Your task to perform on an android device: Open location settings Image 0: 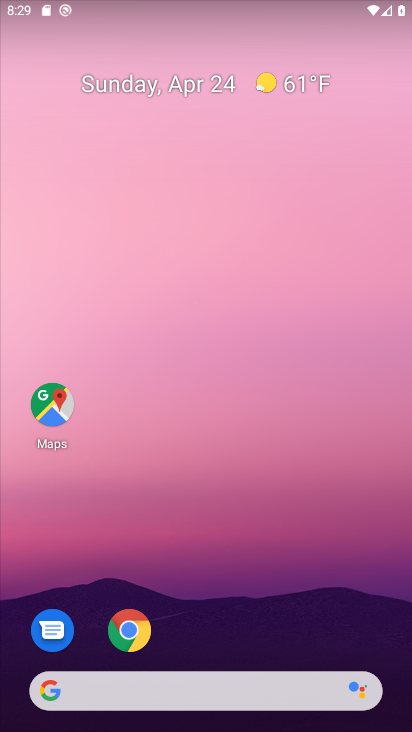
Step 0: drag from (332, 618) to (368, 85)
Your task to perform on an android device: Open location settings Image 1: 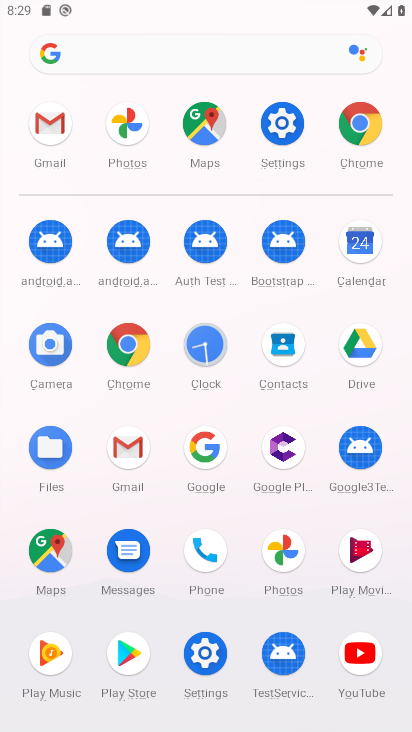
Step 1: click (278, 119)
Your task to perform on an android device: Open location settings Image 2: 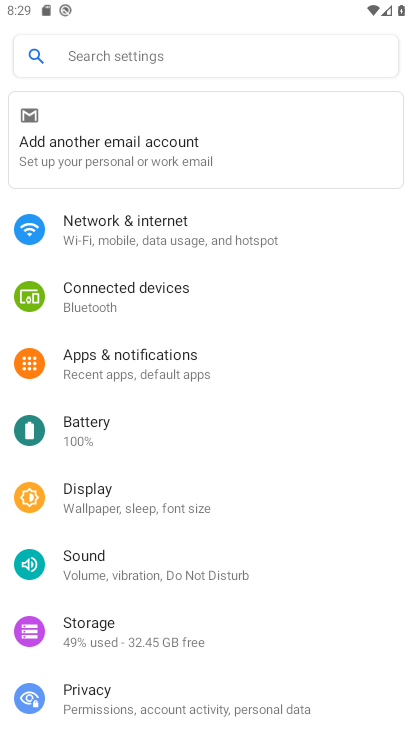
Step 2: drag from (315, 561) to (345, 377)
Your task to perform on an android device: Open location settings Image 3: 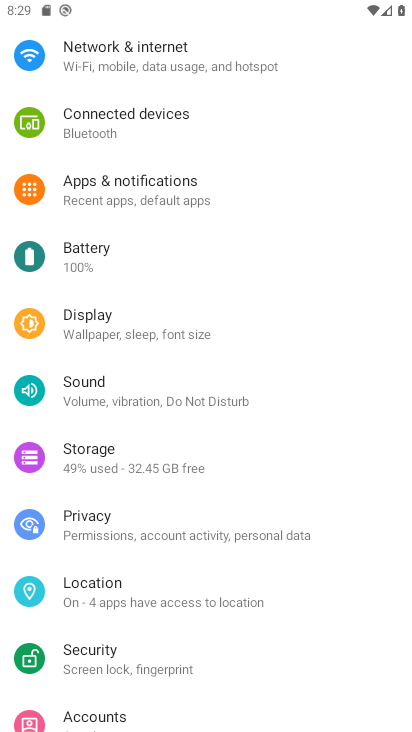
Step 3: drag from (341, 635) to (350, 452)
Your task to perform on an android device: Open location settings Image 4: 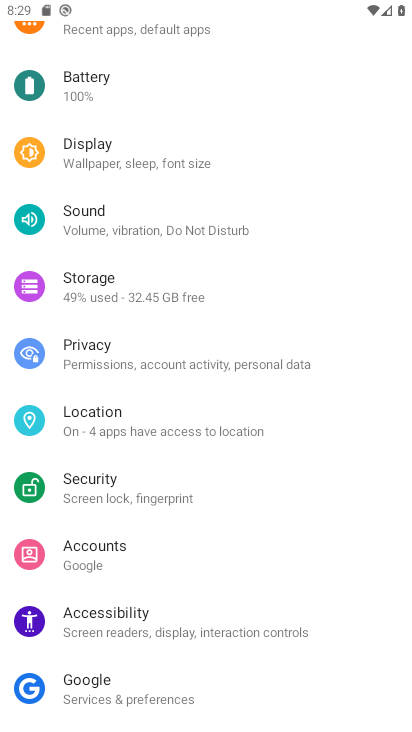
Step 4: drag from (342, 669) to (357, 322)
Your task to perform on an android device: Open location settings Image 5: 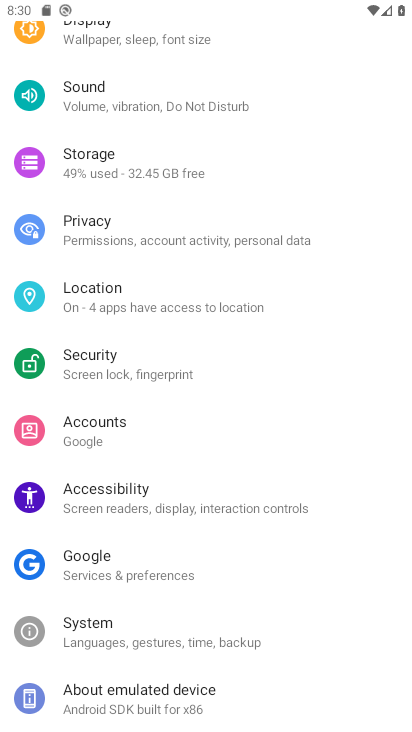
Step 5: drag from (372, 208) to (375, 410)
Your task to perform on an android device: Open location settings Image 6: 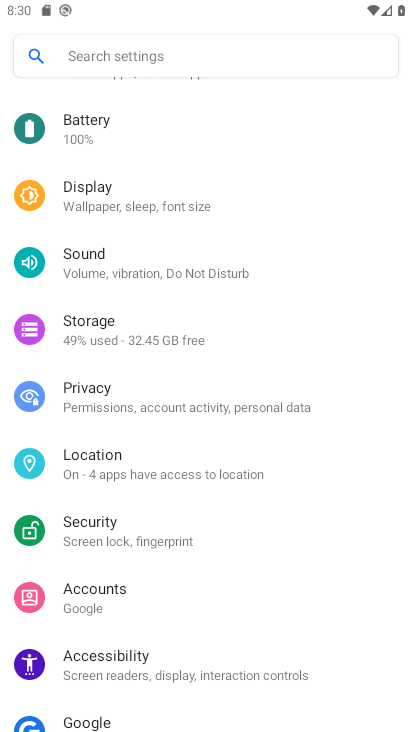
Step 6: drag from (353, 280) to (353, 454)
Your task to perform on an android device: Open location settings Image 7: 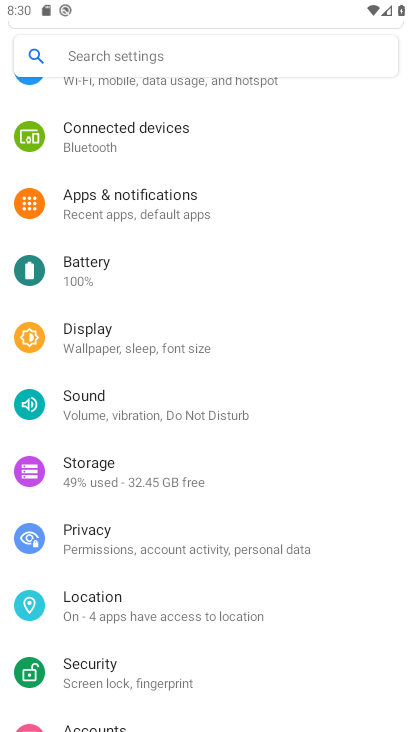
Step 7: drag from (337, 287) to (335, 459)
Your task to perform on an android device: Open location settings Image 8: 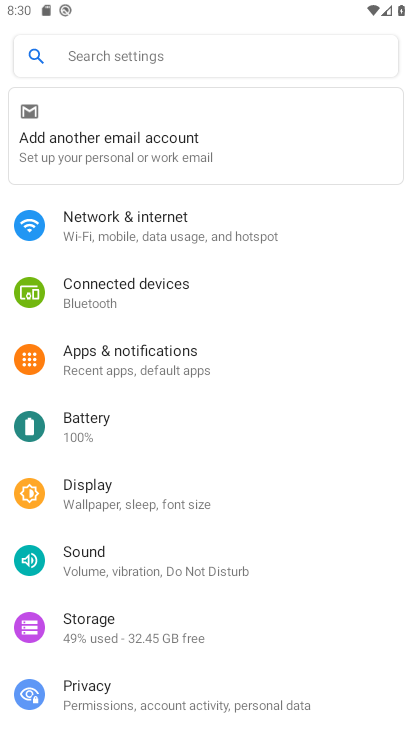
Step 8: drag from (324, 324) to (313, 467)
Your task to perform on an android device: Open location settings Image 9: 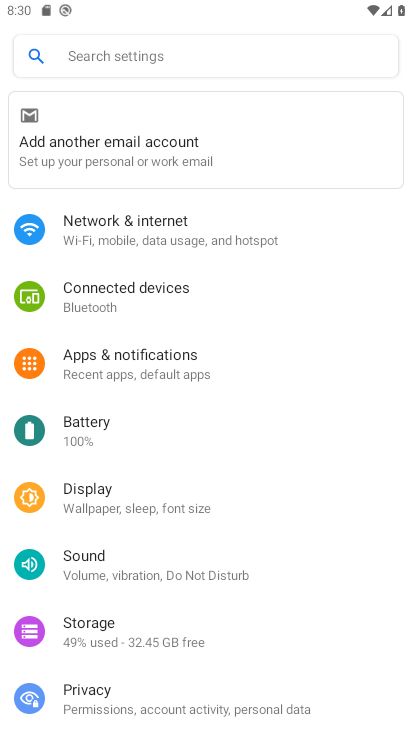
Step 9: drag from (318, 635) to (325, 490)
Your task to perform on an android device: Open location settings Image 10: 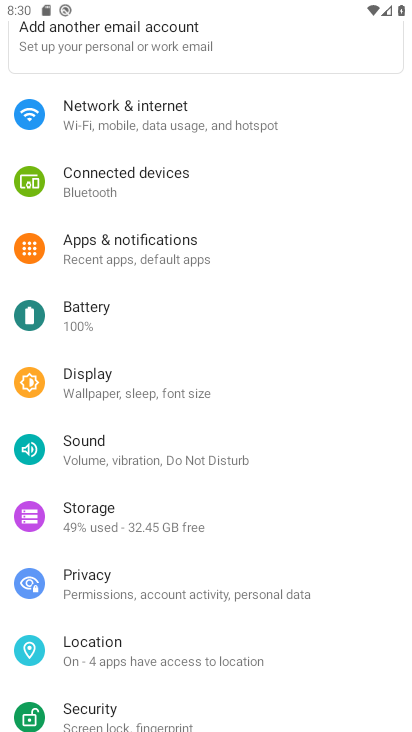
Step 10: drag from (345, 657) to (353, 522)
Your task to perform on an android device: Open location settings Image 11: 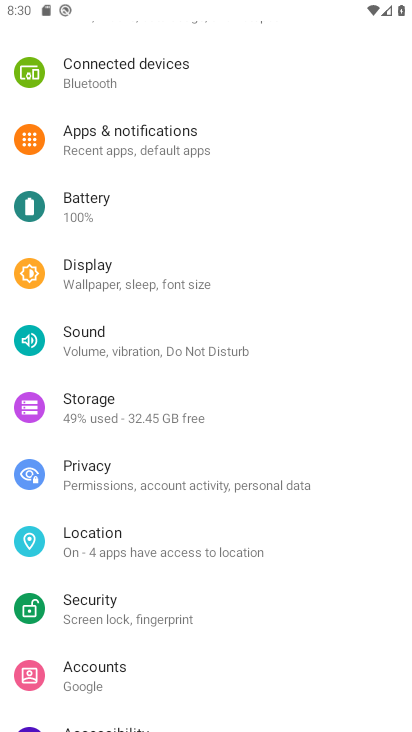
Step 11: drag from (334, 612) to (340, 441)
Your task to perform on an android device: Open location settings Image 12: 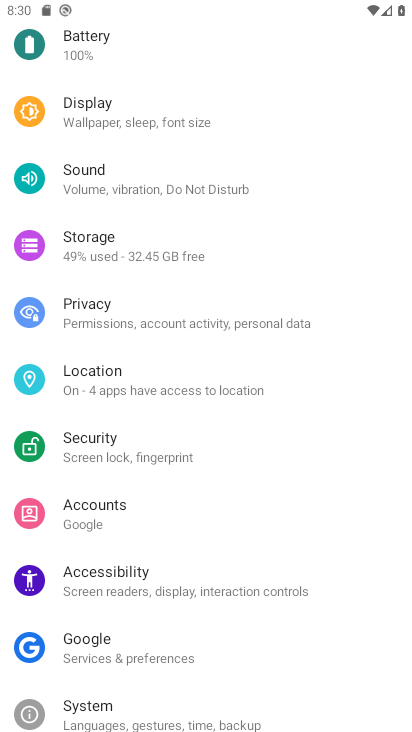
Step 12: click (232, 386)
Your task to perform on an android device: Open location settings Image 13: 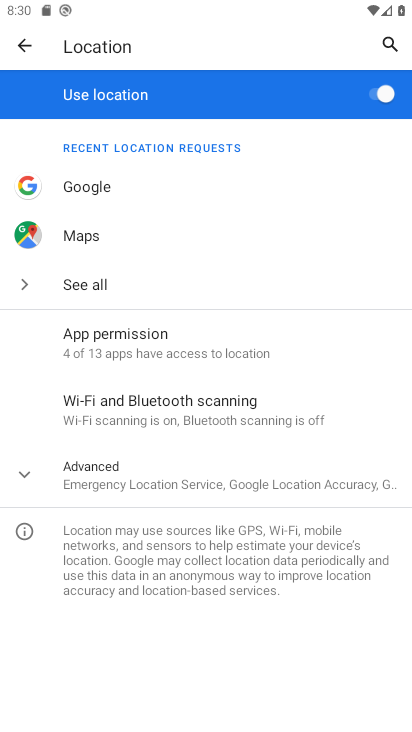
Step 13: task complete